Your task to perform on an android device: Open the calendar and show me this week's events? Image 0: 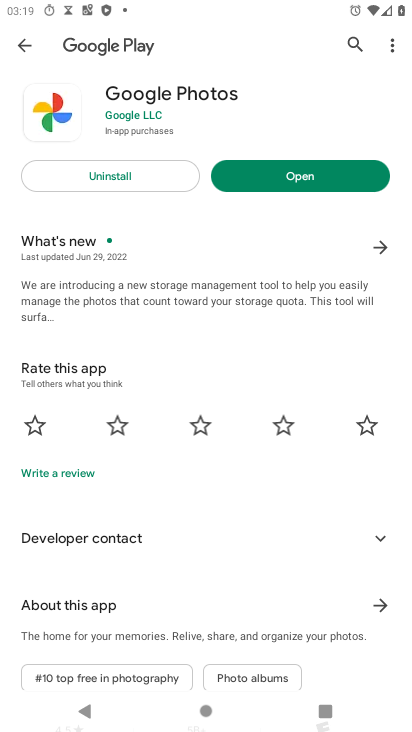
Step 0: press home button
Your task to perform on an android device: Open the calendar and show me this week's events? Image 1: 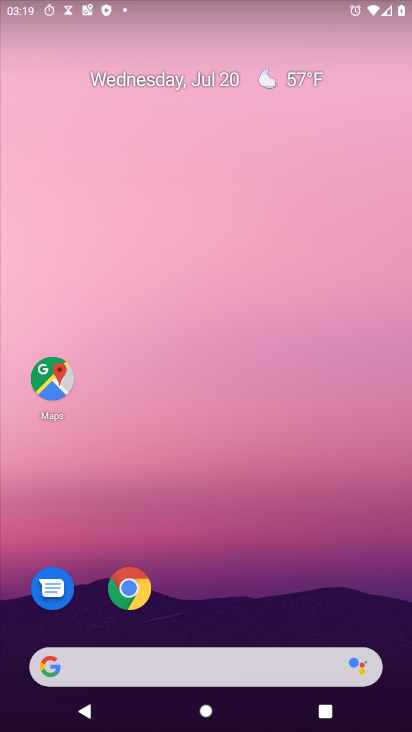
Step 1: drag from (302, 639) to (357, 38)
Your task to perform on an android device: Open the calendar and show me this week's events? Image 2: 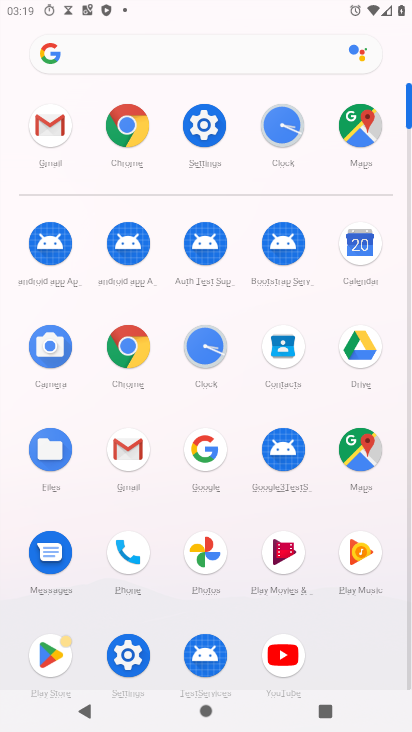
Step 2: click (347, 245)
Your task to perform on an android device: Open the calendar and show me this week's events? Image 3: 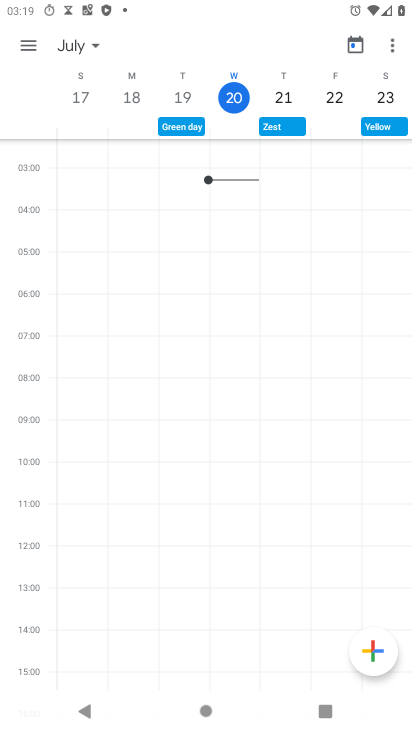
Step 3: click (88, 47)
Your task to perform on an android device: Open the calendar and show me this week's events? Image 4: 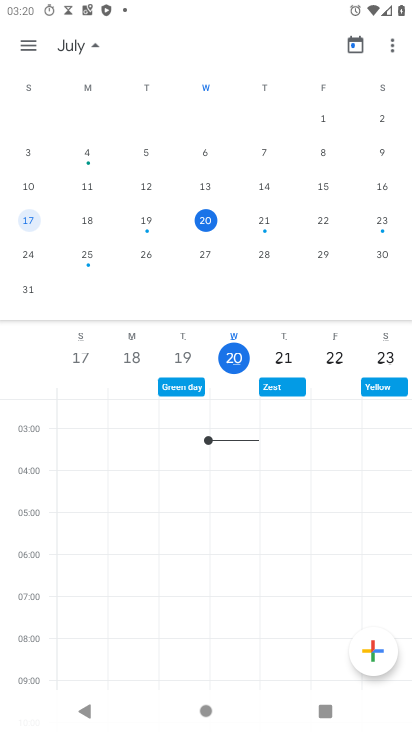
Step 4: task complete